Your task to perform on an android device: Go to accessibility settings Image 0: 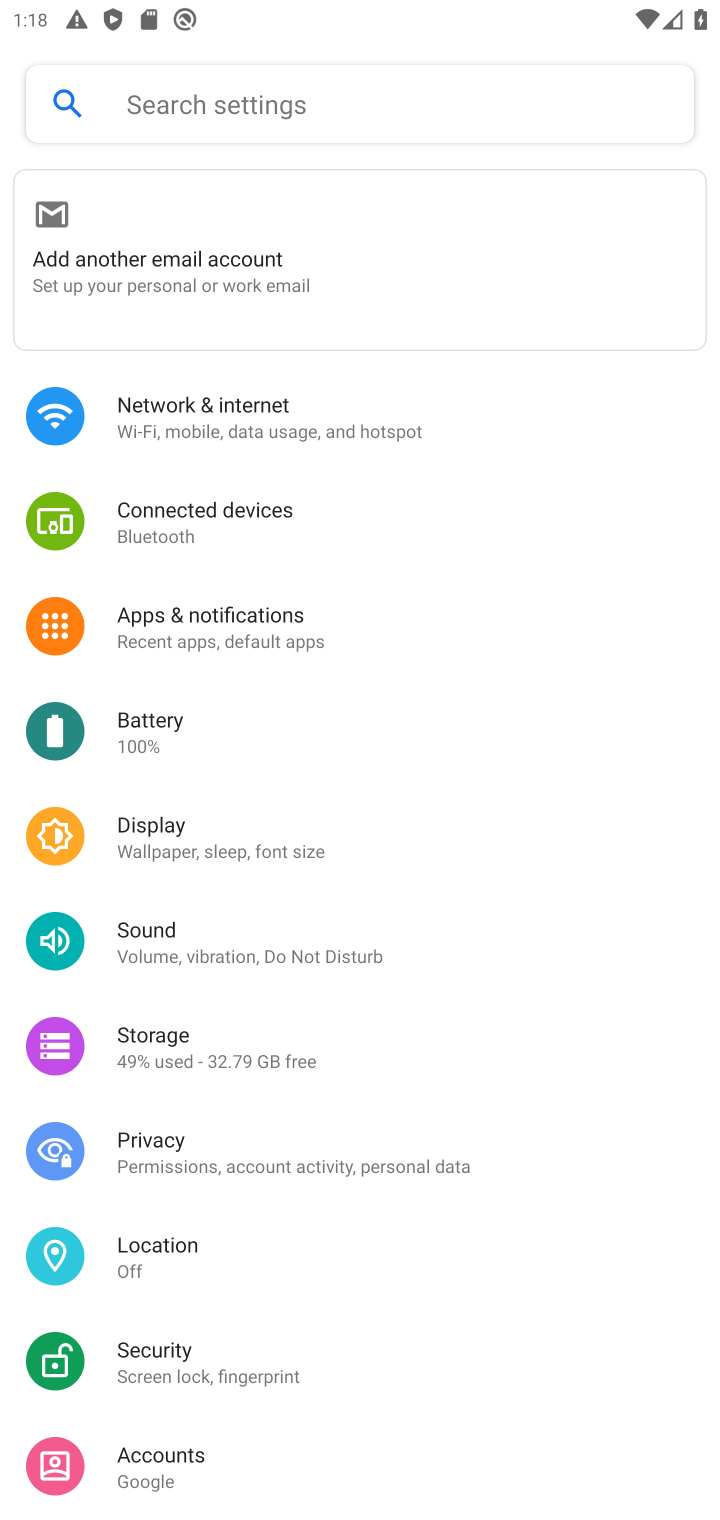
Step 0: drag from (297, 1269) to (271, 195)
Your task to perform on an android device: Go to accessibility settings Image 1: 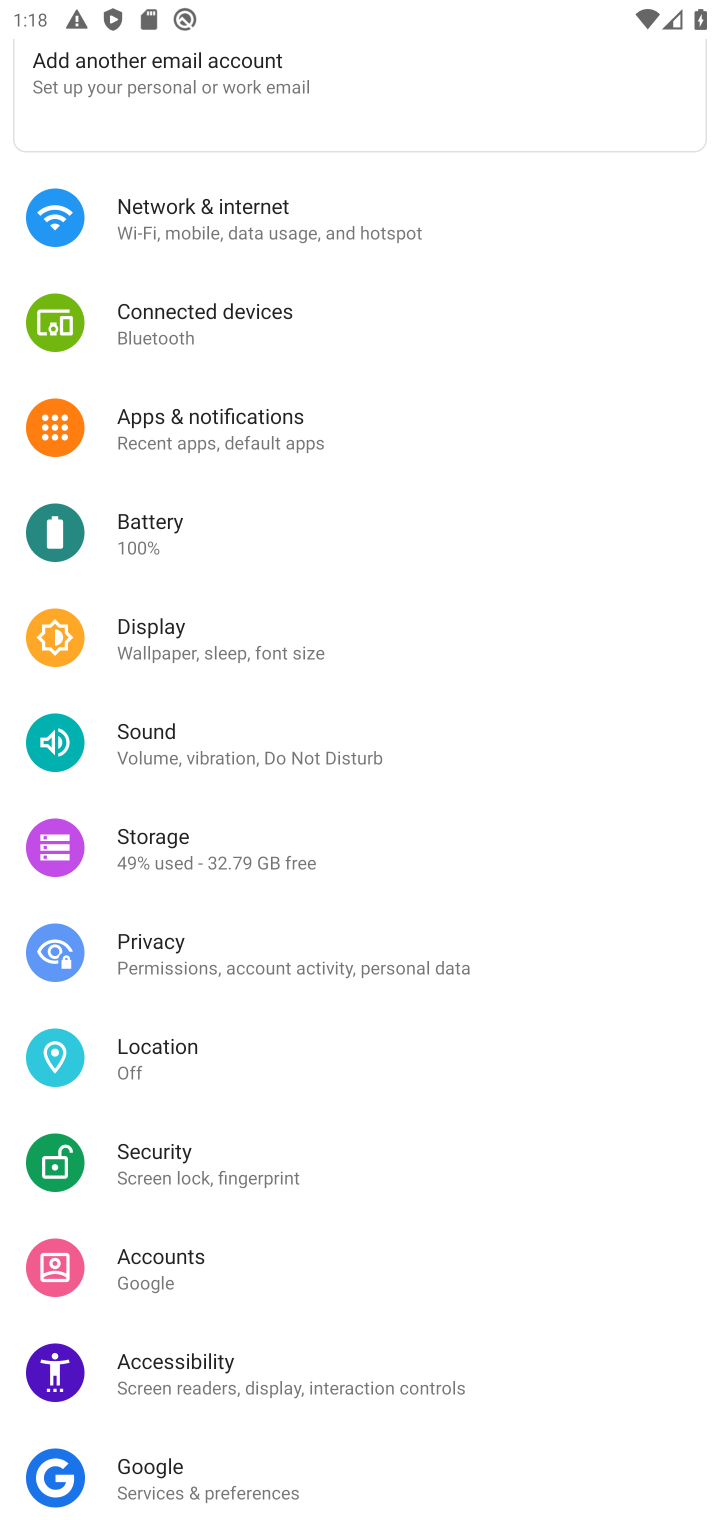
Step 1: click (191, 1365)
Your task to perform on an android device: Go to accessibility settings Image 2: 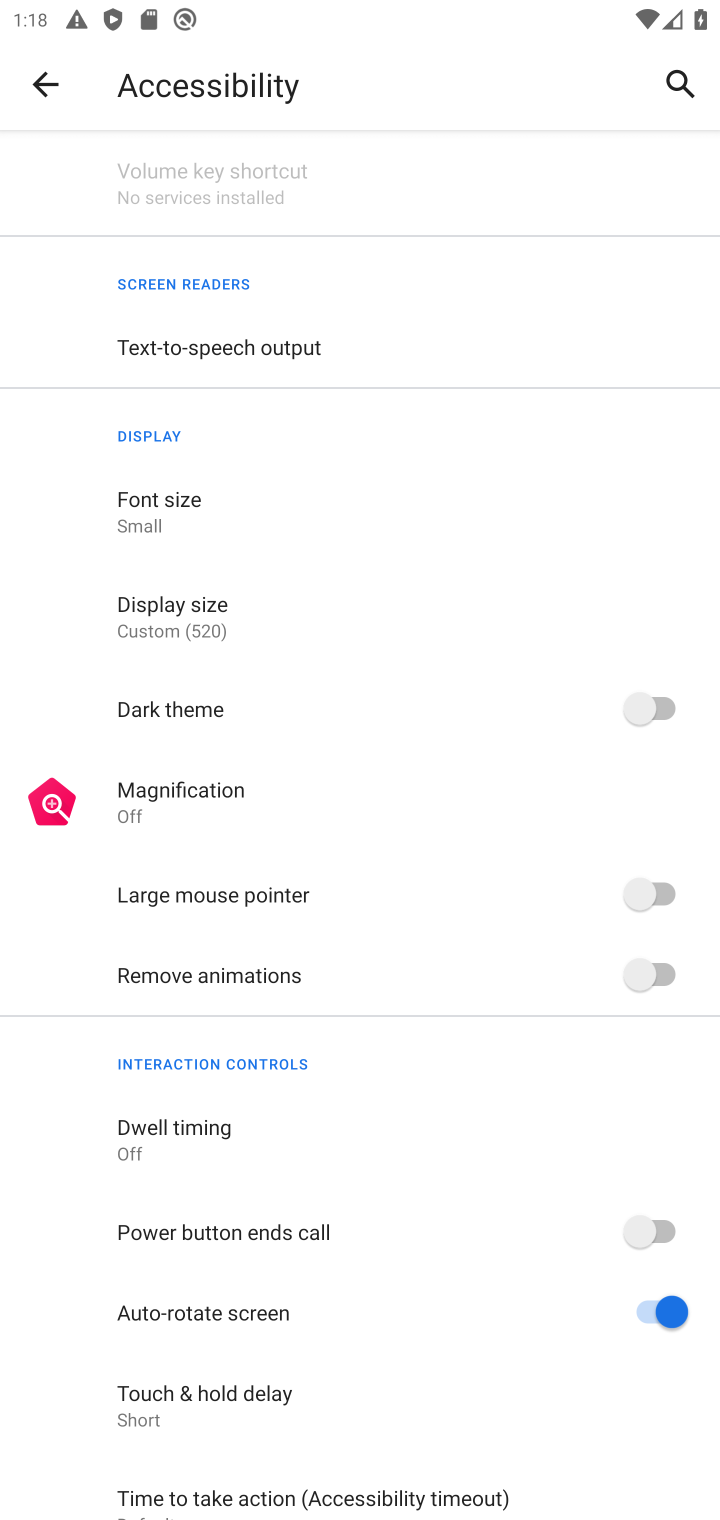
Step 2: task complete